Your task to perform on an android device: Turn on the flashlight Image 0: 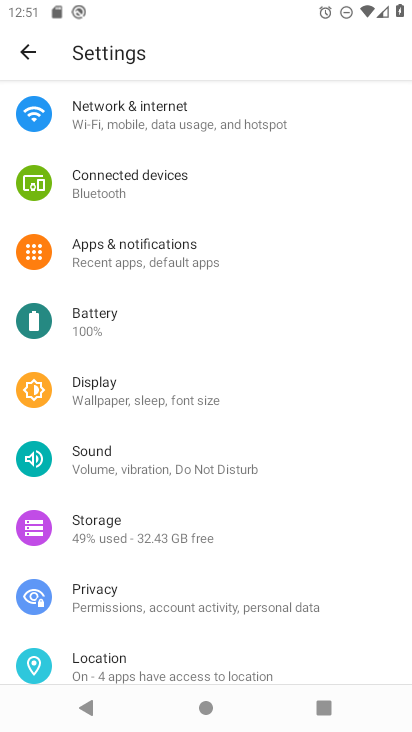
Step 0: click (85, 388)
Your task to perform on an android device: Turn on the flashlight Image 1: 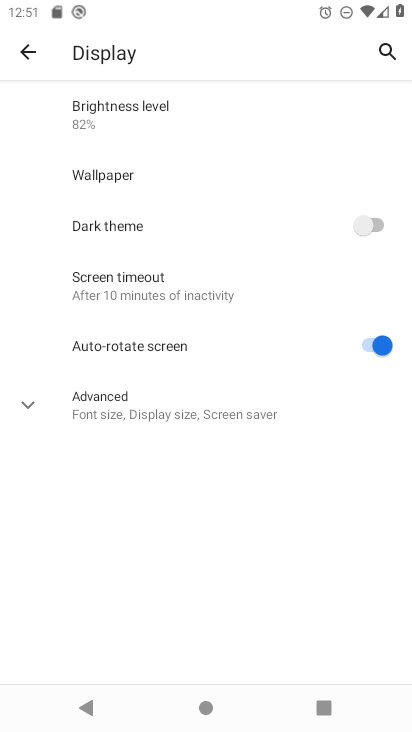
Step 1: task complete